Your task to perform on an android device: uninstall "Speedtest by Ookla" Image 0: 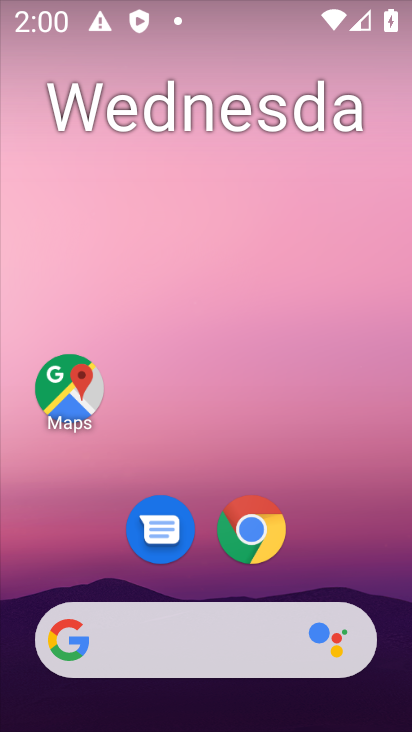
Step 0: drag from (131, 102) to (16, 662)
Your task to perform on an android device: uninstall "Speedtest by Ookla" Image 1: 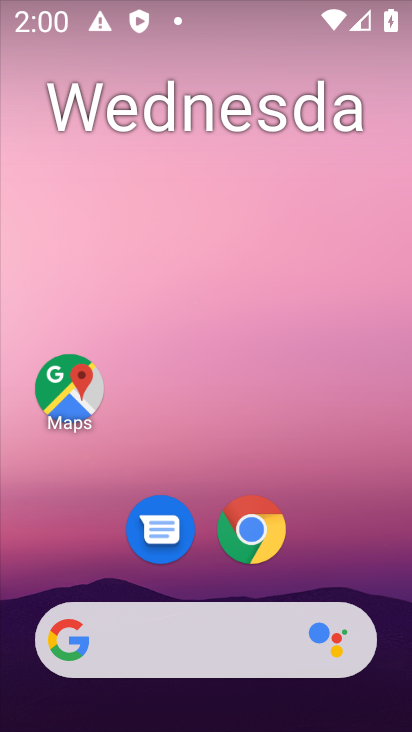
Step 1: drag from (199, 600) to (174, 0)
Your task to perform on an android device: uninstall "Speedtest by Ookla" Image 2: 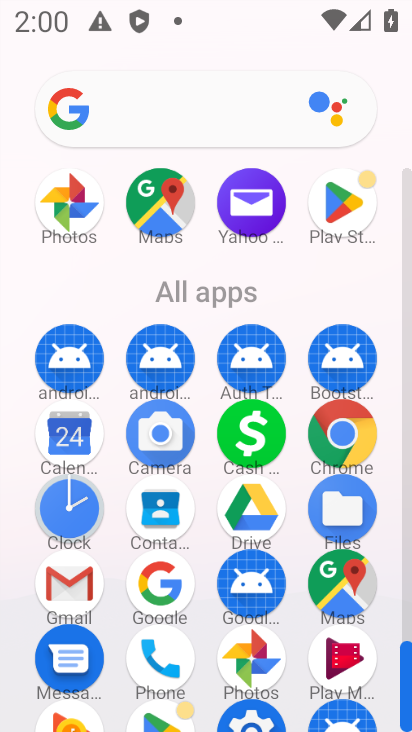
Step 2: click (336, 196)
Your task to perform on an android device: uninstall "Speedtest by Ookla" Image 3: 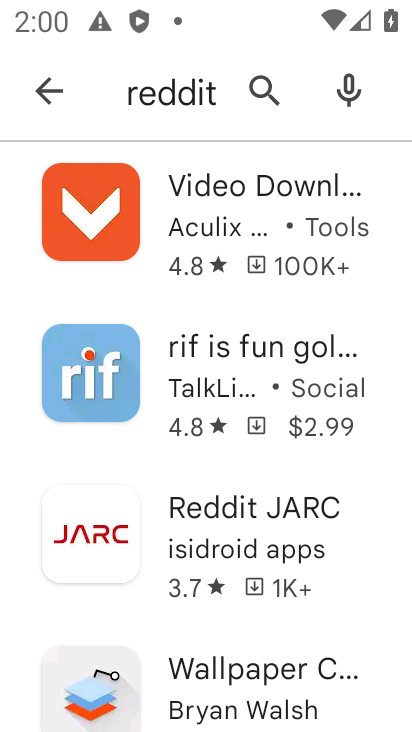
Step 3: click (256, 97)
Your task to perform on an android device: uninstall "Speedtest by Ookla" Image 4: 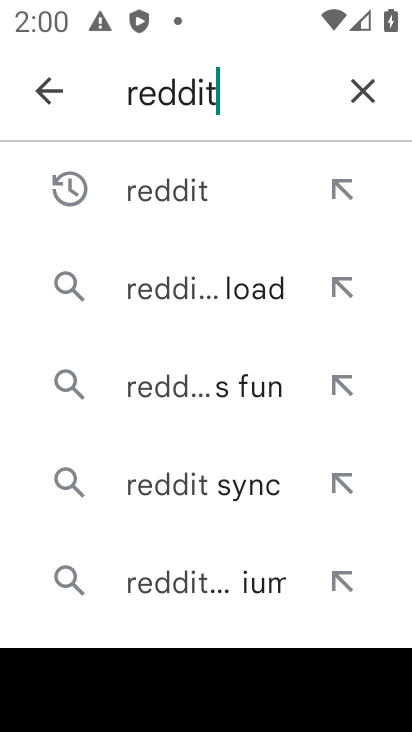
Step 4: click (358, 103)
Your task to perform on an android device: uninstall "Speedtest by Ookla" Image 5: 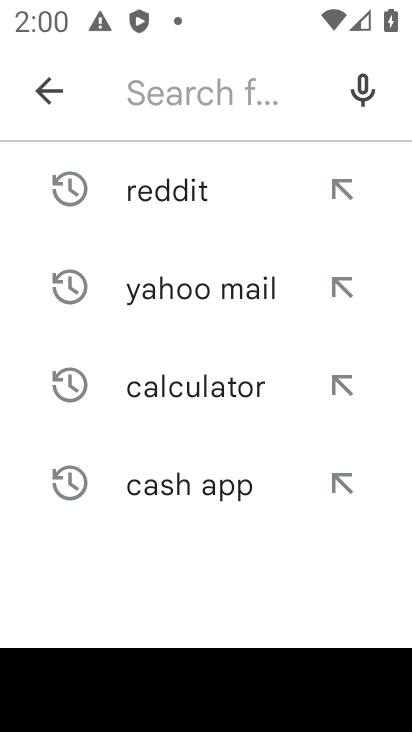
Step 5: type "speedtest"
Your task to perform on an android device: uninstall "Speedtest by Ookla" Image 6: 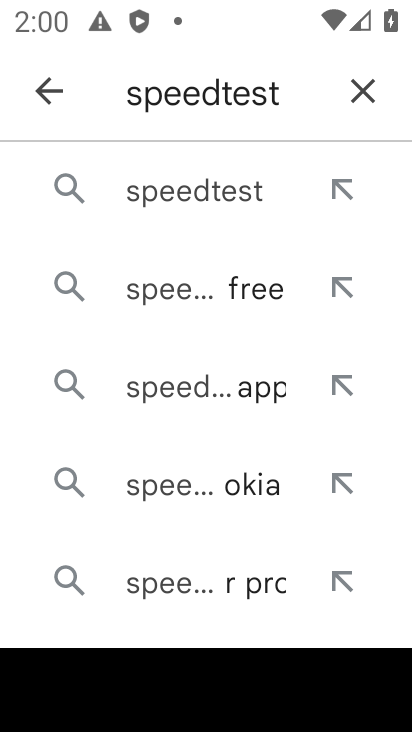
Step 6: click (198, 196)
Your task to perform on an android device: uninstall "Speedtest by Ookla" Image 7: 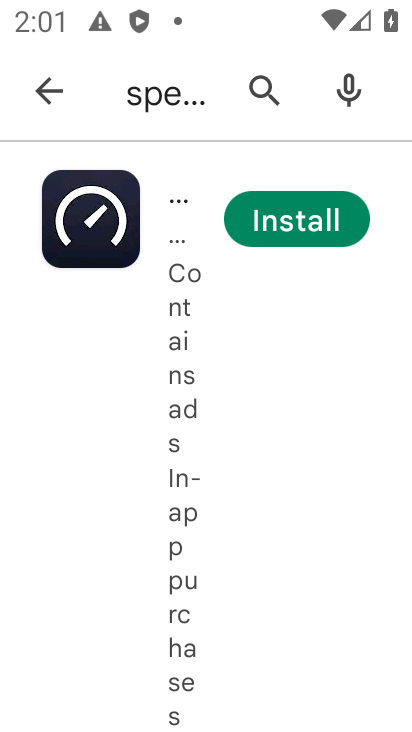
Step 7: task complete